Your task to perform on an android device: What's on my calendar today? Image 0: 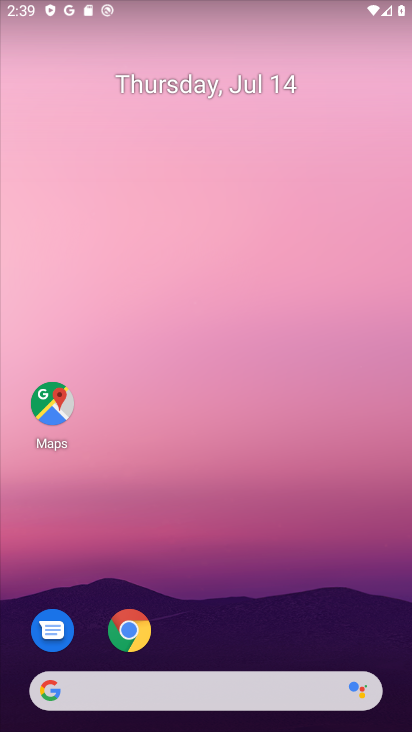
Step 0: click (167, 169)
Your task to perform on an android device: What's on my calendar today? Image 1: 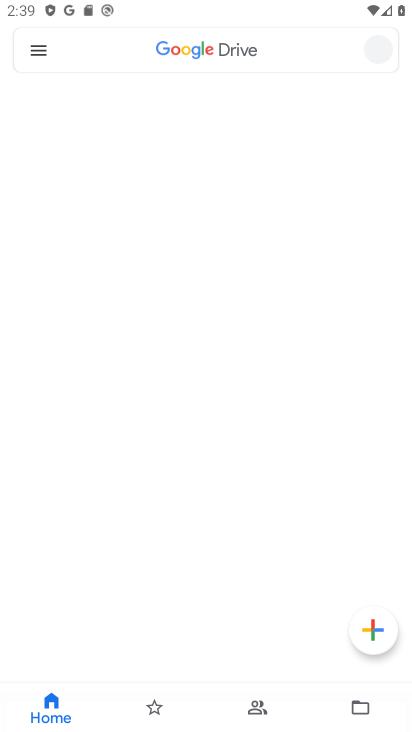
Step 1: drag from (204, 309) to (169, 119)
Your task to perform on an android device: What's on my calendar today? Image 2: 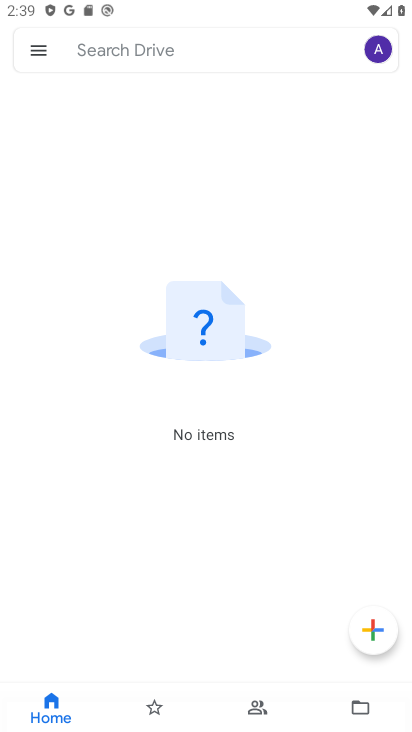
Step 2: drag from (258, 506) to (223, 182)
Your task to perform on an android device: What's on my calendar today? Image 3: 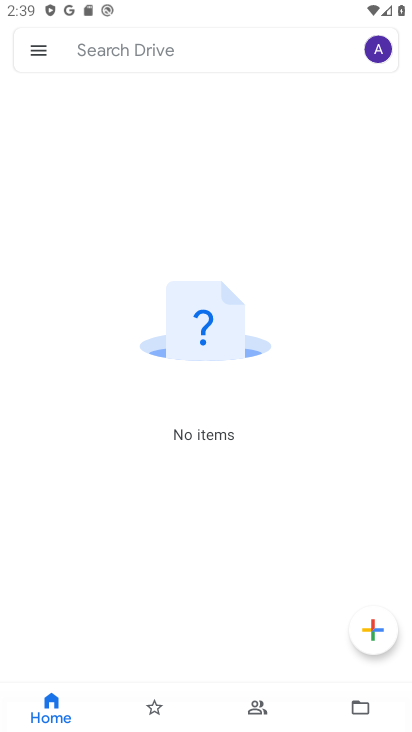
Step 3: press back button
Your task to perform on an android device: What's on my calendar today? Image 4: 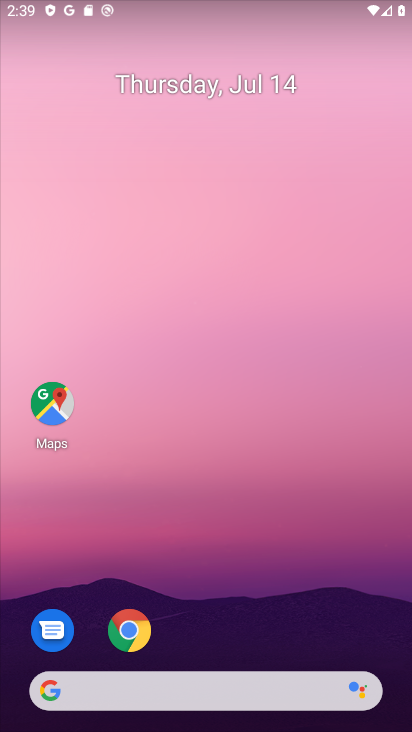
Step 4: drag from (260, 605) to (163, 289)
Your task to perform on an android device: What's on my calendar today? Image 5: 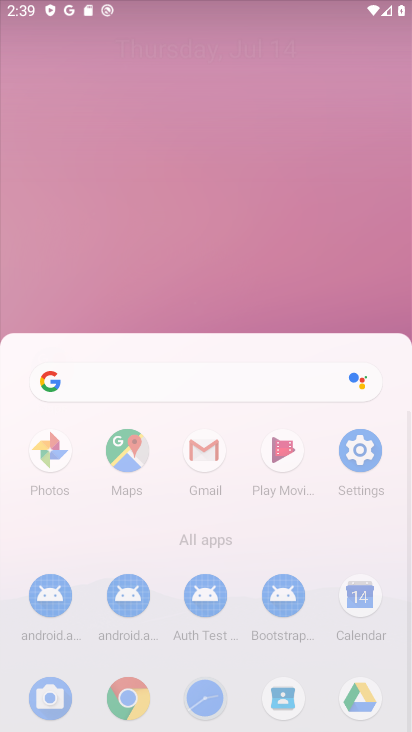
Step 5: drag from (287, 679) to (242, 404)
Your task to perform on an android device: What's on my calendar today? Image 6: 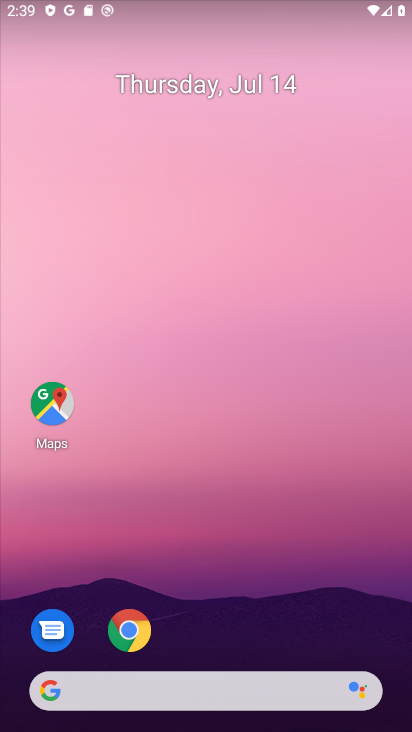
Step 6: drag from (318, 668) to (184, 203)
Your task to perform on an android device: What's on my calendar today? Image 7: 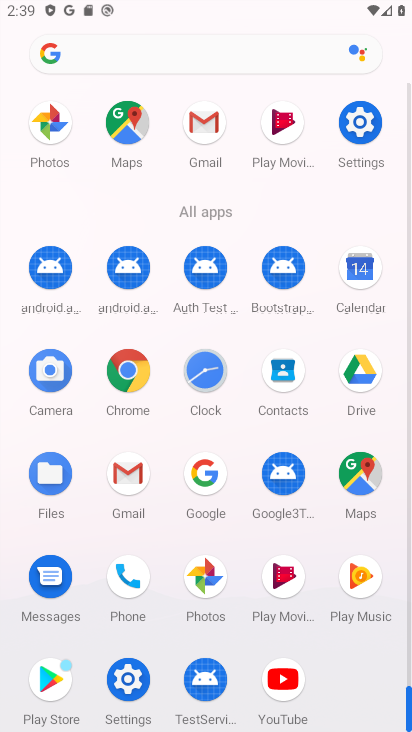
Step 7: drag from (256, 500) to (178, 145)
Your task to perform on an android device: What's on my calendar today? Image 8: 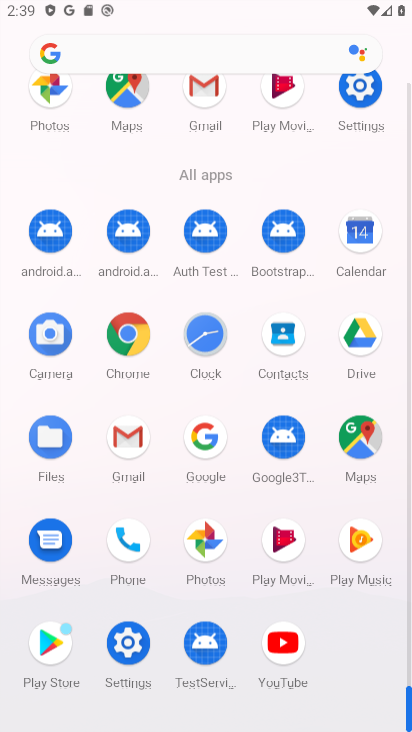
Step 8: drag from (242, 563) to (166, 177)
Your task to perform on an android device: What's on my calendar today? Image 9: 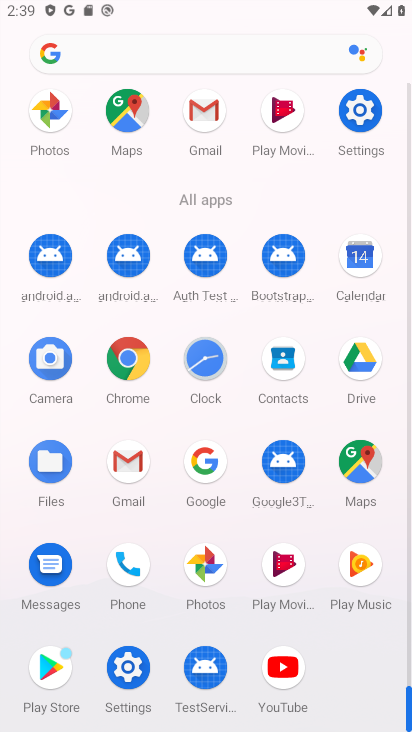
Step 9: click (365, 276)
Your task to perform on an android device: What's on my calendar today? Image 10: 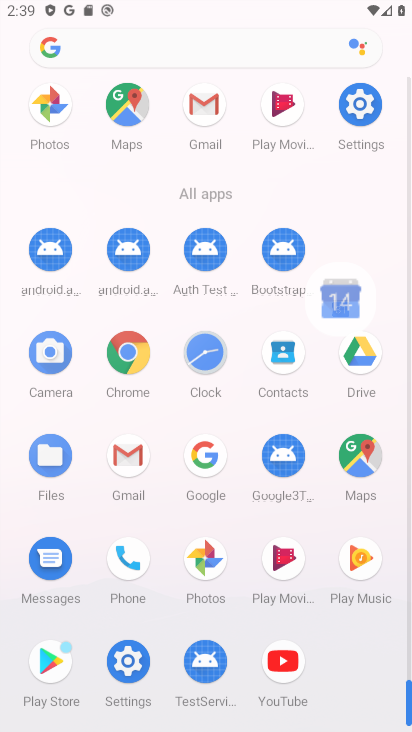
Step 10: click (362, 242)
Your task to perform on an android device: What's on my calendar today? Image 11: 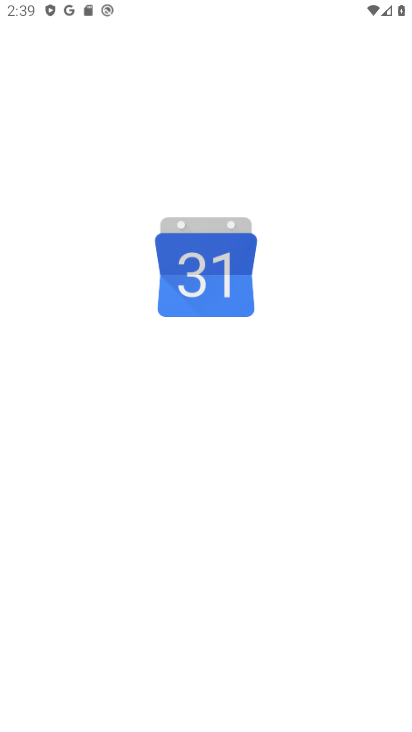
Step 11: click (362, 242)
Your task to perform on an android device: What's on my calendar today? Image 12: 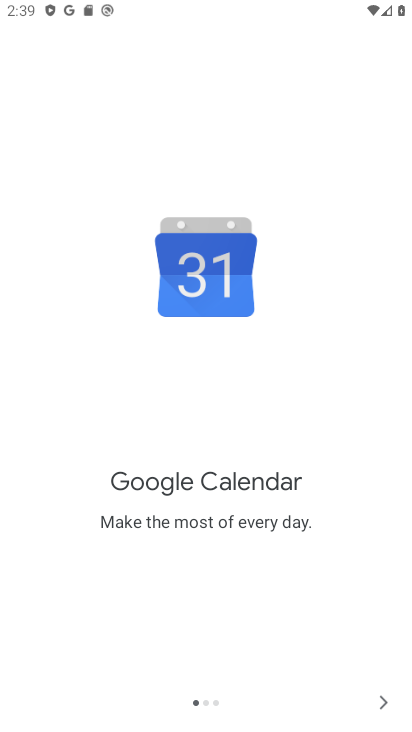
Step 12: click (384, 701)
Your task to perform on an android device: What's on my calendar today? Image 13: 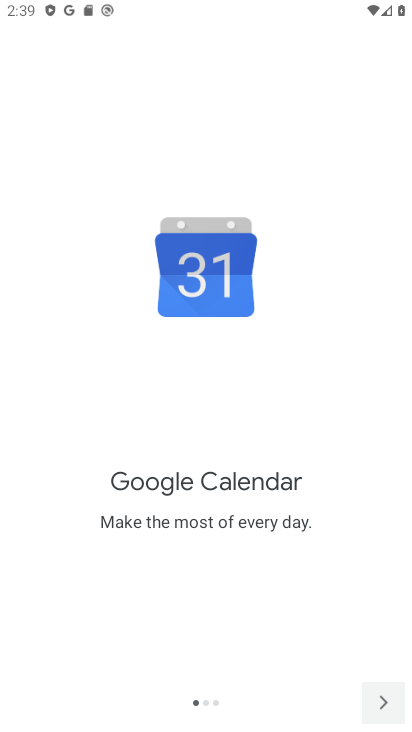
Step 13: click (385, 701)
Your task to perform on an android device: What's on my calendar today? Image 14: 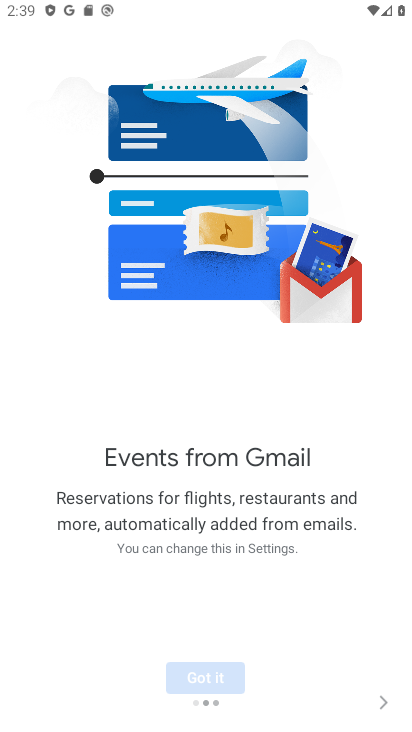
Step 14: click (385, 701)
Your task to perform on an android device: What's on my calendar today? Image 15: 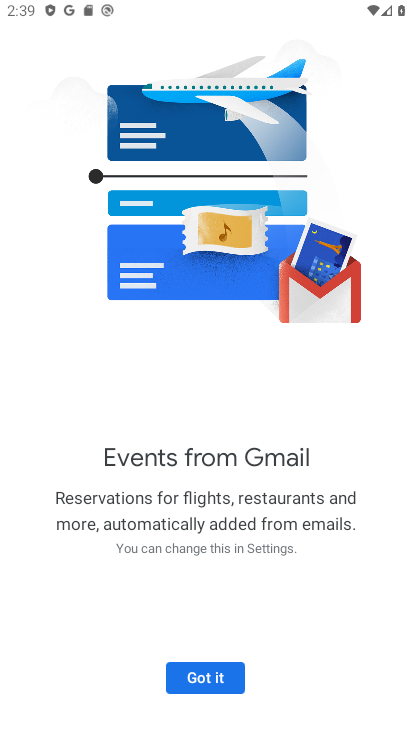
Step 15: click (381, 708)
Your task to perform on an android device: What's on my calendar today? Image 16: 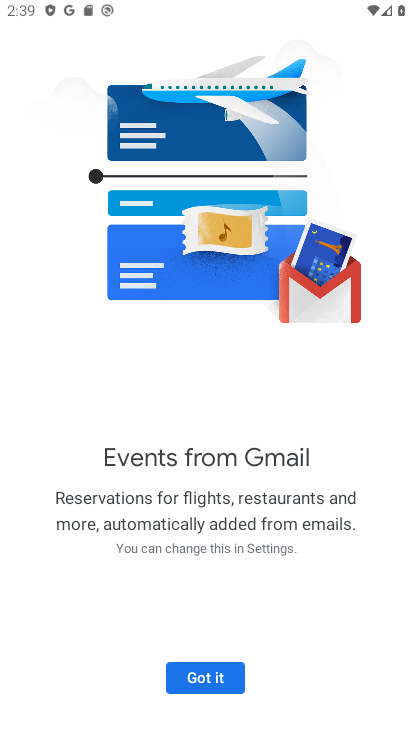
Step 16: click (231, 677)
Your task to perform on an android device: What's on my calendar today? Image 17: 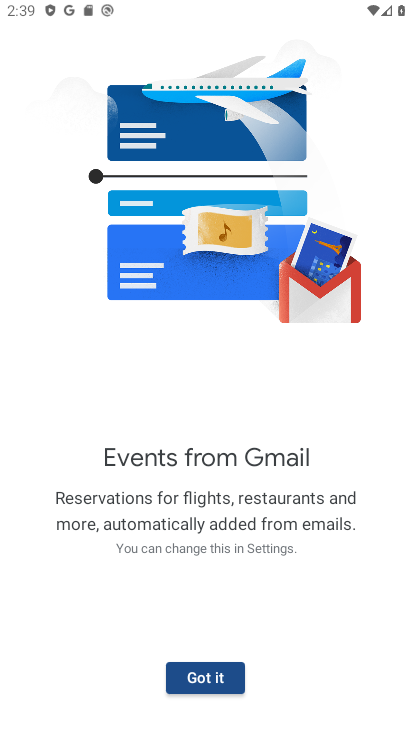
Step 17: click (231, 681)
Your task to perform on an android device: What's on my calendar today? Image 18: 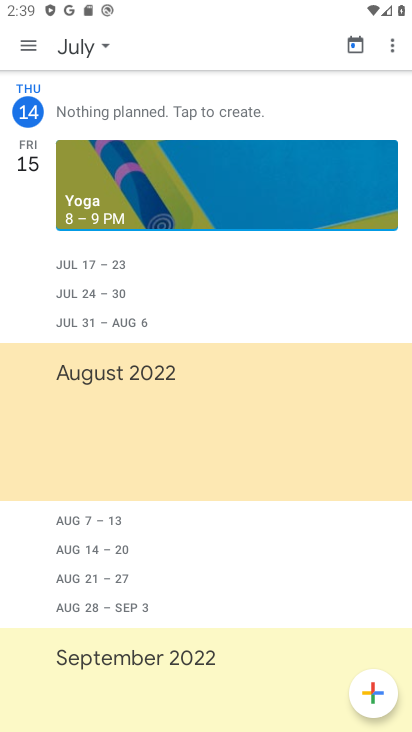
Step 18: click (108, 47)
Your task to perform on an android device: What's on my calendar today? Image 19: 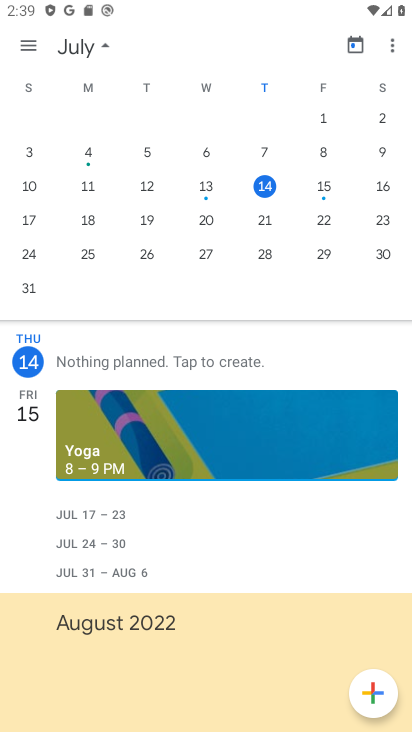
Step 19: click (257, 181)
Your task to perform on an android device: What's on my calendar today? Image 20: 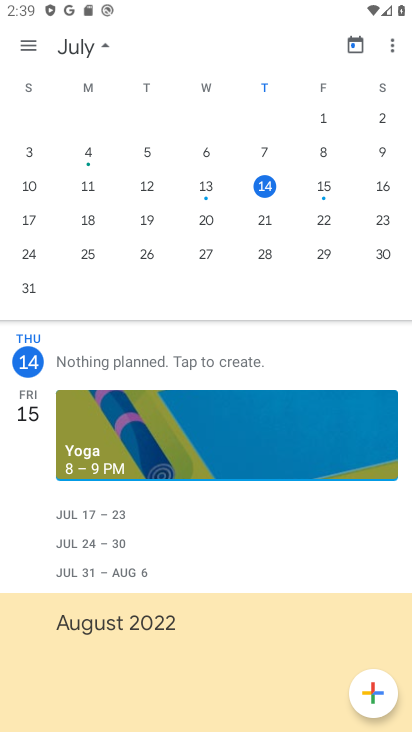
Step 20: task complete